Your task to perform on an android device: Check out the new nike air max 2020. Image 0: 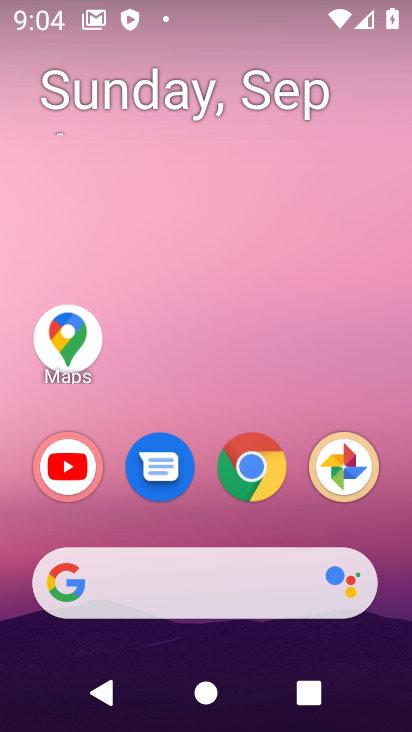
Step 0: click (242, 469)
Your task to perform on an android device: Check out the new nike air max 2020. Image 1: 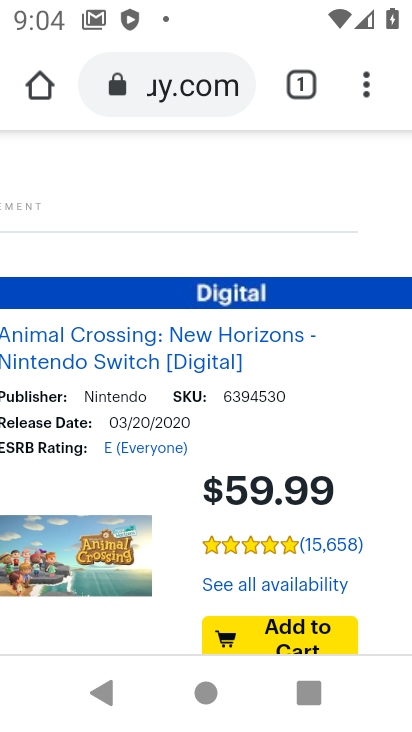
Step 1: click (205, 75)
Your task to perform on an android device: Check out the new nike air max 2020. Image 2: 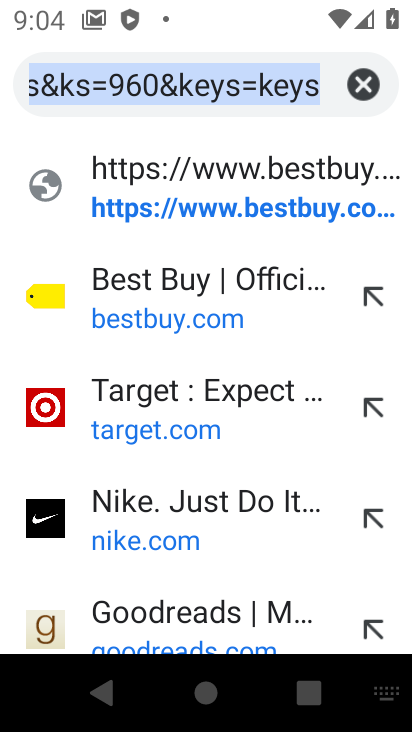
Step 2: click (164, 68)
Your task to perform on an android device: Check out the new nike air max 2020. Image 3: 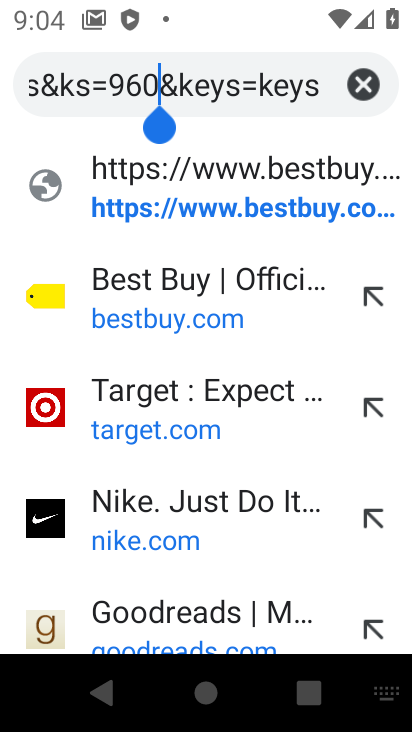
Step 3: click (170, 79)
Your task to perform on an android device: Check out the new nike air max 2020. Image 4: 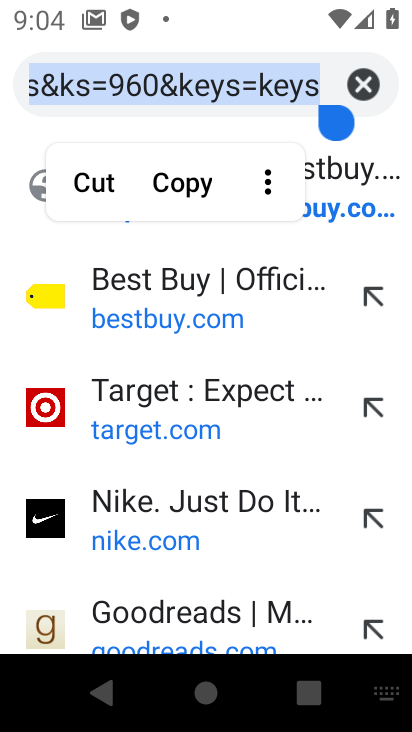
Step 4: click (365, 79)
Your task to perform on an android device: Check out the new nike air max 2020. Image 5: 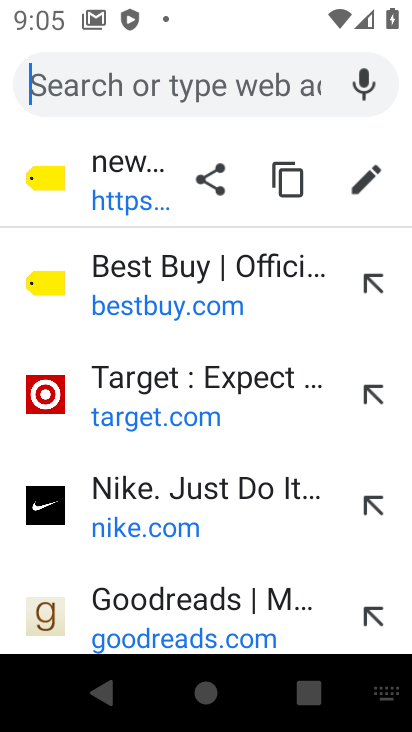
Step 5: type "new nike air max 2020"
Your task to perform on an android device: Check out the new nike air max 2020. Image 6: 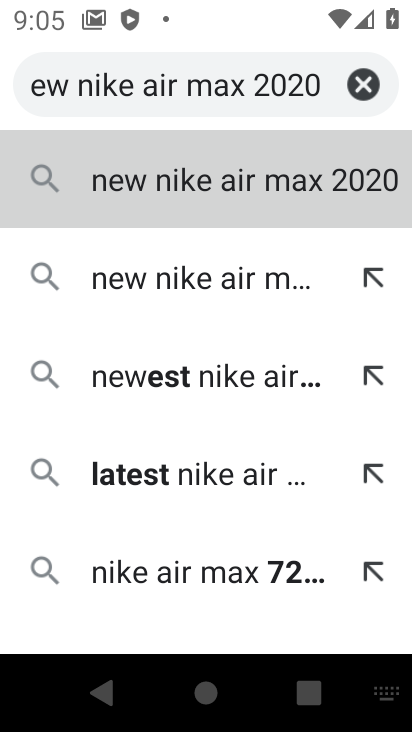
Step 6: type ""
Your task to perform on an android device: Check out the new nike air max 2020. Image 7: 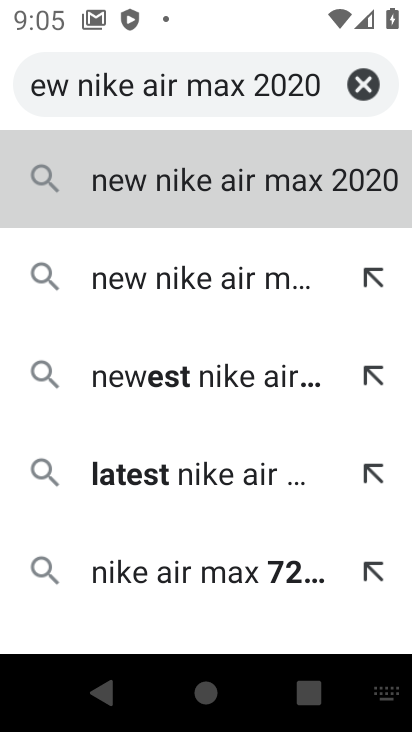
Step 7: click (215, 182)
Your task to perform on an android device: Check out the new nike air max 2020. Image 8: 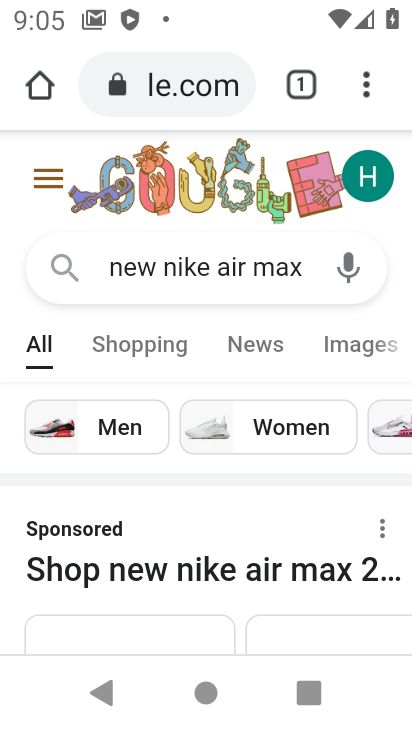
Step 8: drag from (256, 518) to (296, 171)
Your task to perform on an android device: Check out the new nike air max 2020. Image 9: 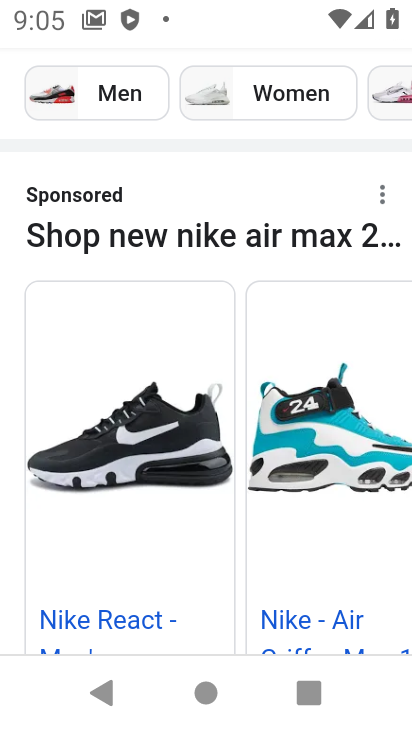
Step 9: click (112, 404)
Your task to perform on an android device: Check out the new nike air max 2020. Image 10: 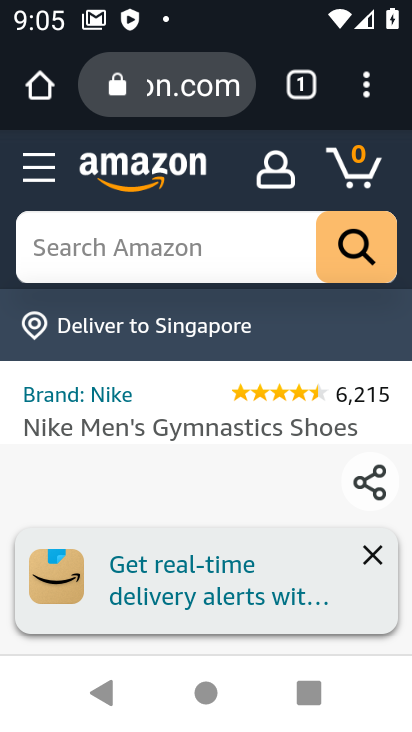
Step 10: drag from (138, 594) to (153, 233)
Your task to perform on an android device: Check out the new nike air max 2020. Image 11: 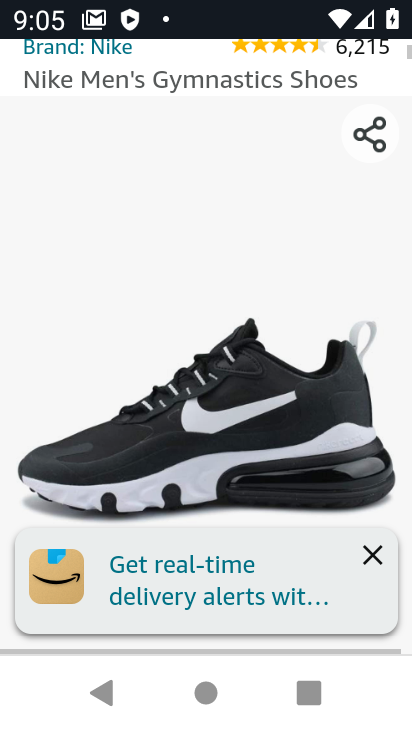
Step 11: drag from (205, 325) to (242, 276)
Your task to perform on an android device: Check out the new nike air max 2020. Image 12: 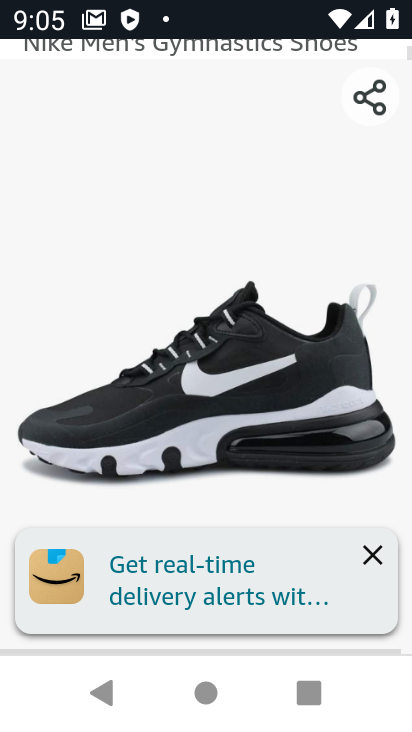
Step 12: click (371, 552)
Your task to perform on an android device: Check out the new nike air max 2020. Image 13: 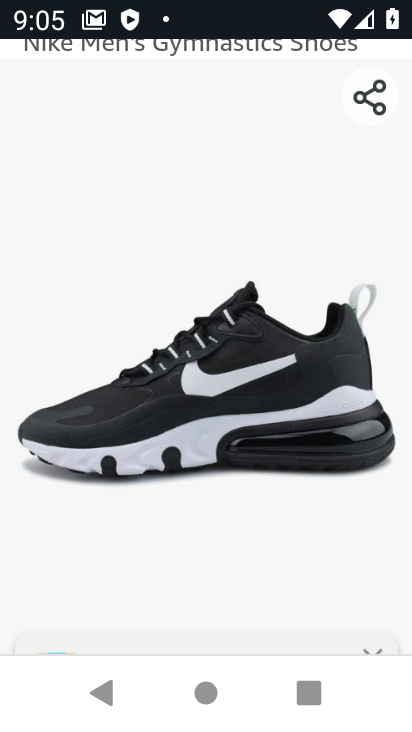
Step 13: drag from (297, 490) to (271, 246)
Your task to perform on an android device: Check out the new nike air max 2020. Image 14: 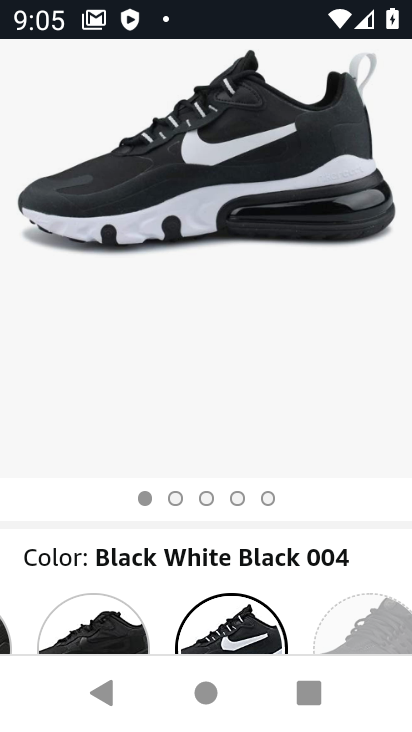
Step 14: drag from (297, 405) to (325, 258)
Your task to perform on an android device: Check out the new nike air max 2020. Image 15: 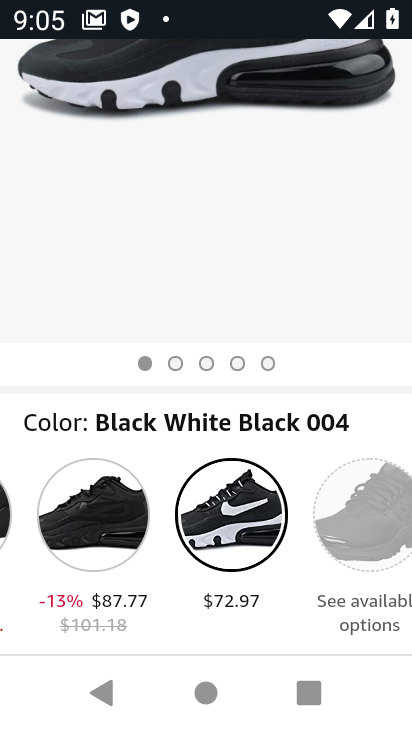
Step 15: drag from (336, 278) to (334, 104)
Your task to perform on an android device: Check out the new nike air max 2020. Image 16: 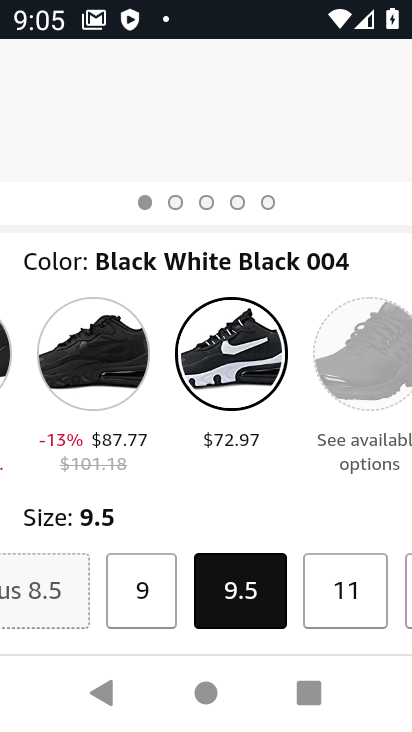
Step 16: click (254, 229)
Your task to perform on an android device: Check out the new nike air max 2020. Image 17: 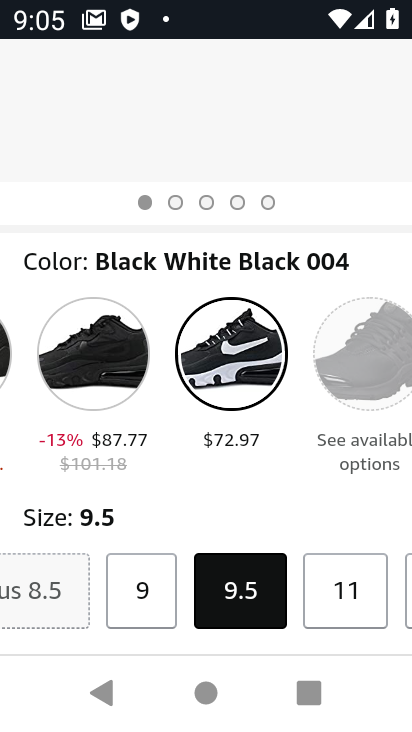
Step 17: drag from (226, 294) to (226, 241)
Your task to perform on an android device: Check out the new nike air max 2020. Image 18: 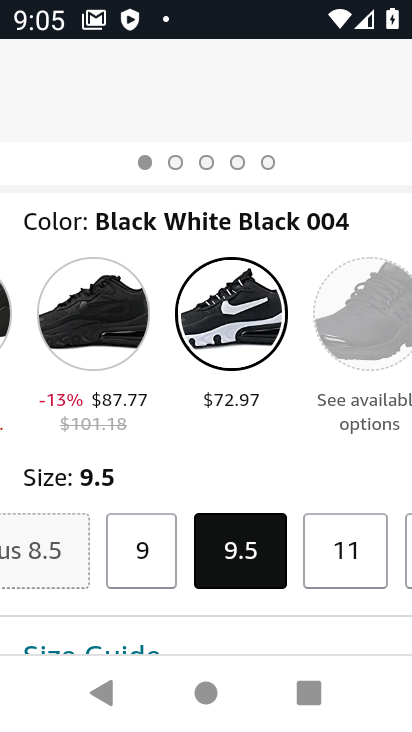
Step 18: drag from (344, 455) to (317, 226)
Your task to perform on an android device: Check out the new nike air max 2020. Image 19: 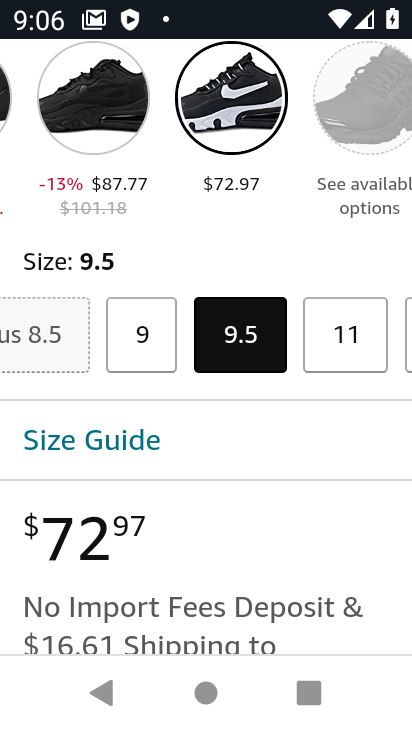
Step 19: click (293, 340)
Your task to perform on an android device: Check out the new nike air max 2020. Image 20: 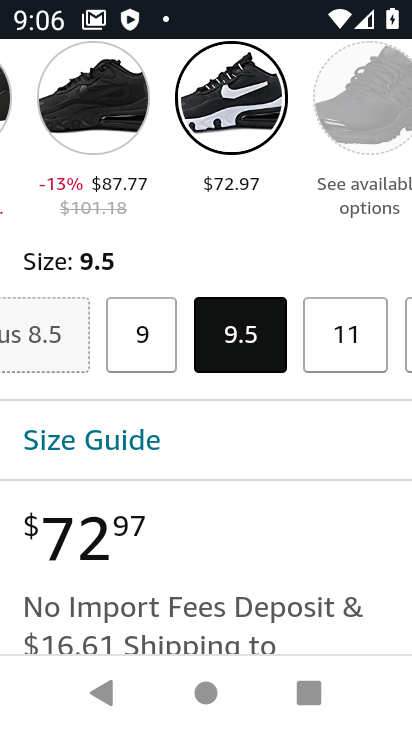
Step 20: drag from (388, 589) to (376, 344)
Your task to perform on an android device: Check out the new nike air max 2020. Image 21: 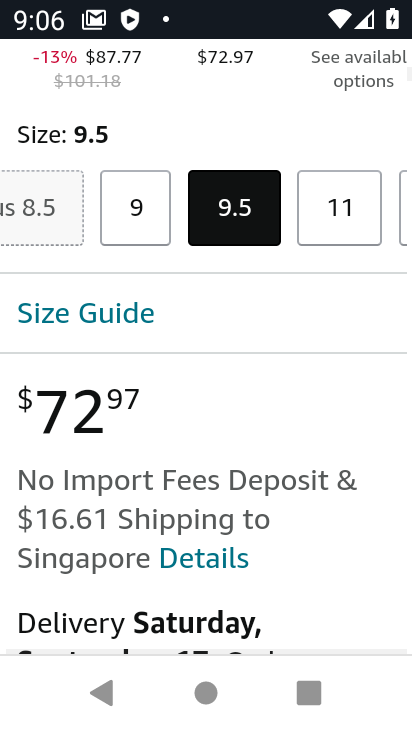
Step 21: drag from (369, 577) to (349, 361)
Your task to perform on an android device: Check out the new nike air max 2020. Image 22: 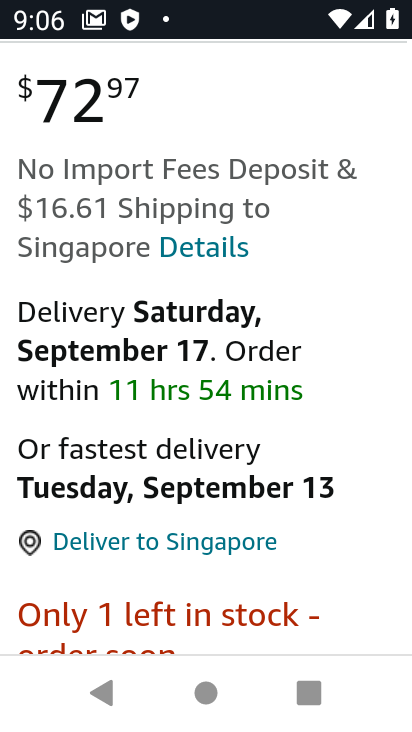
Step 22: drag from (324, 549) to (323, 416)
Your task to perform on an android device: Check out the new nike air max 2020. Image 23: 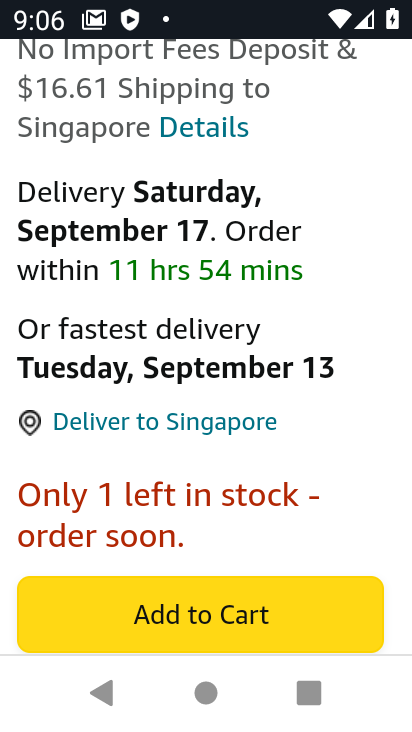
Step 23: drag from (335, 498) to (302, 312)
Your task to perform on an android device: Check out the new nike air max 2020. Image 24: 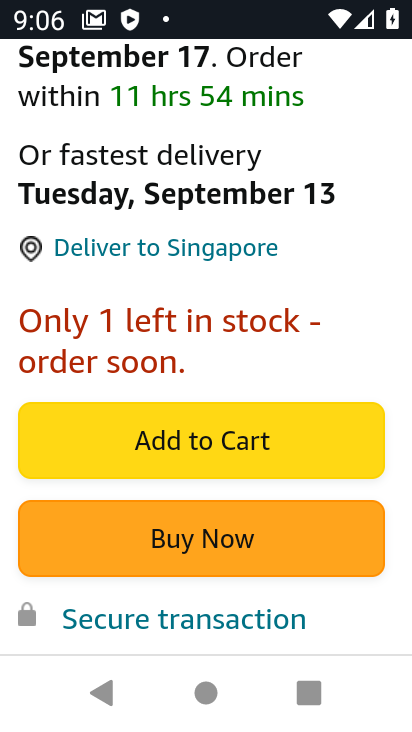
Step 24: drag from (350, 298) to (338, 115)
Your task to perform on an android device: Check out the new nike air max 2020. Image 25: 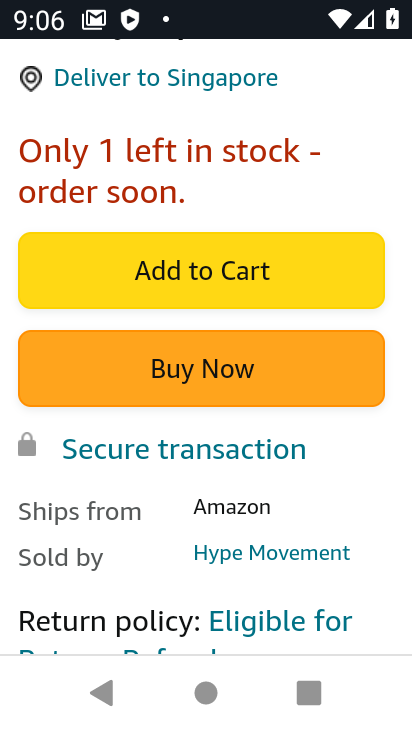
Step 25: drag from (395, 575) to (361, 139)
Your task to perform on an android device: Check out the new nike air max 2020. Image 26: 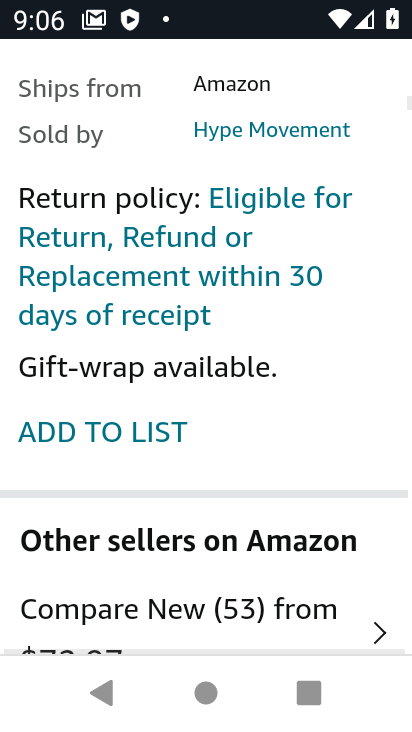
Step 26: drag from (372, 481) to (374, 177)
Your task to perform on an android device: Check out the new nike air max 2020. Image 27: 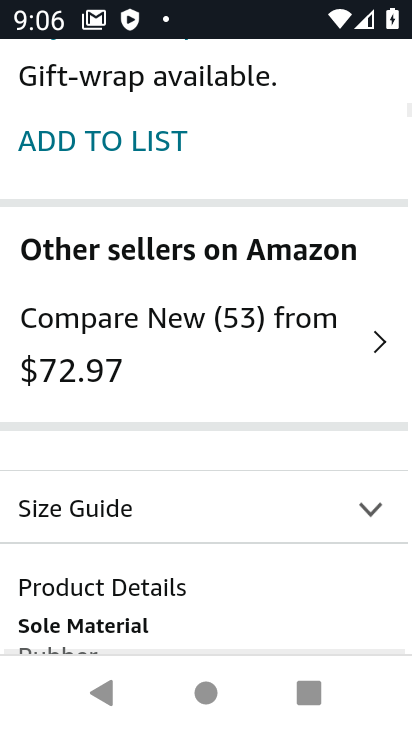
Step 27: drag from (392, 431) to (380, 173)
Your task to perform on an android device: Check out the new nike air max 2020. Image 28: 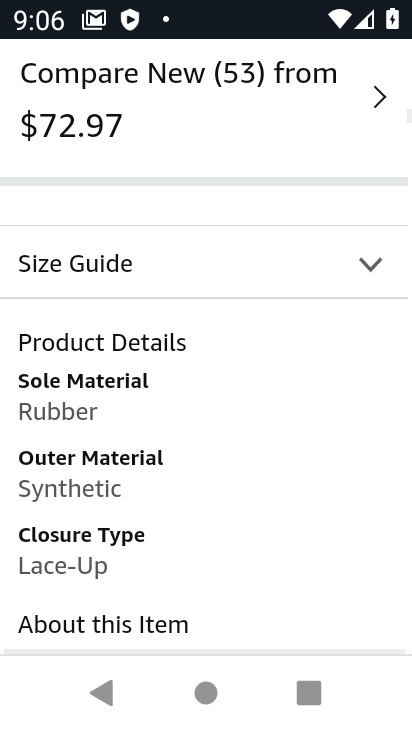
Step 28: drag from (337, 493) to (377, 238)
Your task to perform on an android device: Check out the new nike air max 2020. Image 29: 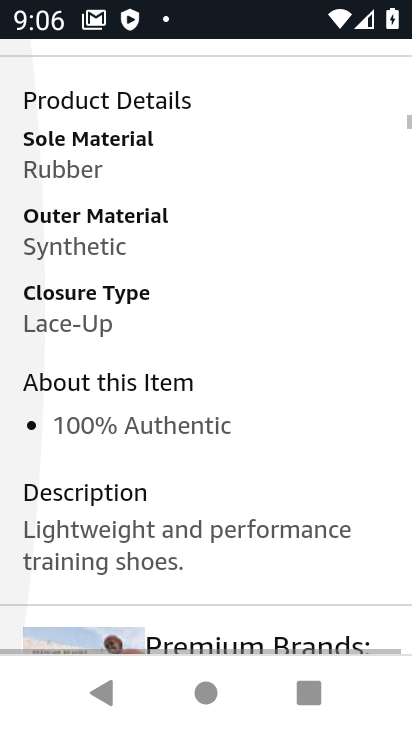
Step 29: drag from (356, 371) to (369, 162)
Your task to perform on an android device: Check out the new nike air max 2020. Image 30: 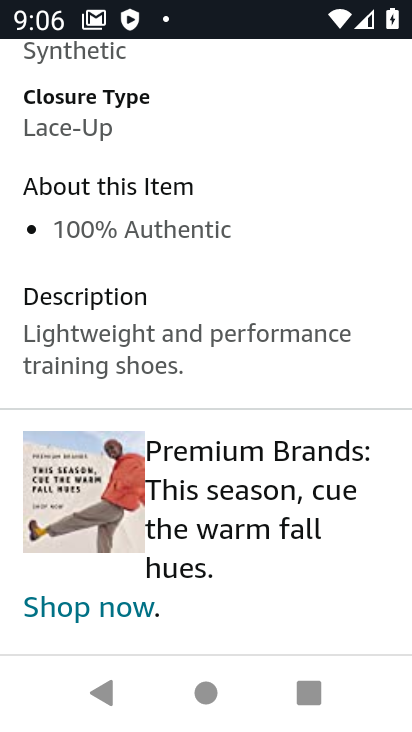
Step 30: drag from (326, 427) to (256, 170)
Your task to perform on an android device: Check out the new nike air max 2020. Image 31: 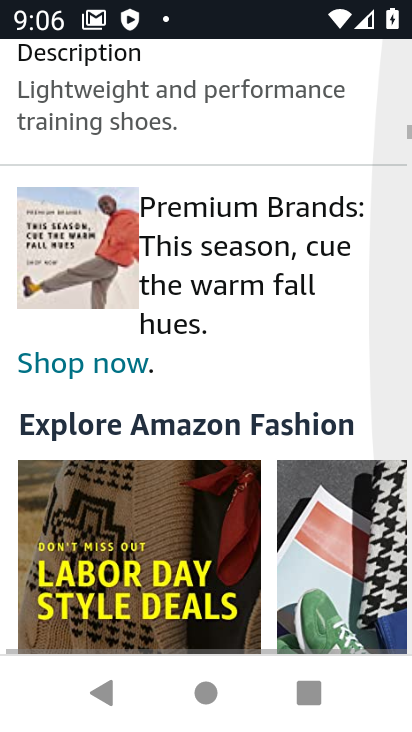
Step 31: drag from (266, 560) to (312, 238)
Your task to perform on an android device: Check out the new nike air max 2020. Image 32: 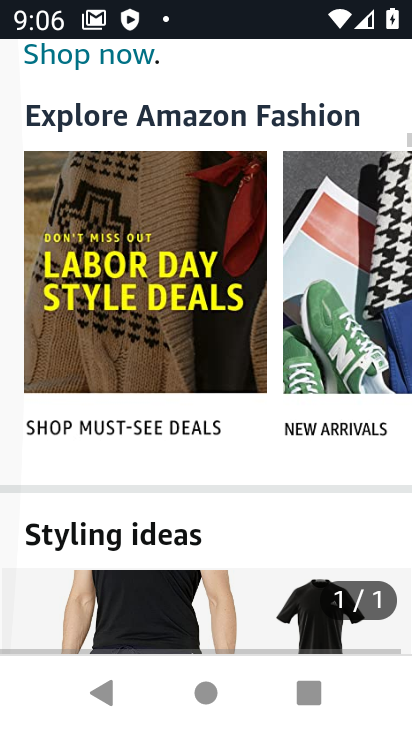
Step 32: drag from (368, 519) to (336, 699)
Your task to perform on an android device: Check out the new nike air max 2020. Image 33: 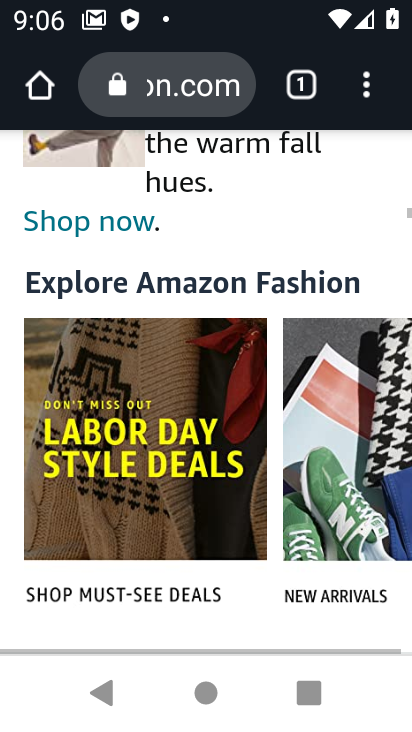
Step 33: drag from (385, 194) to (394, 730)
Your task to perform on an android device: Check out the new nike air max 2020. Image 34: 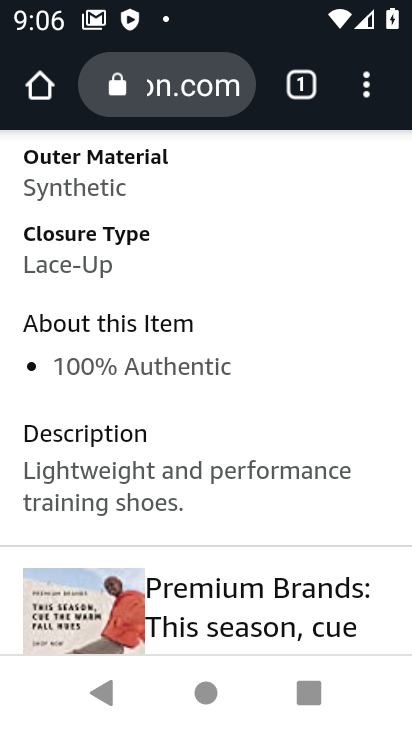
Step 34: drag from (367, 237) to (350, 672)
Your task to perform on an android device: Check out the new nike air max 2020. Image 35: 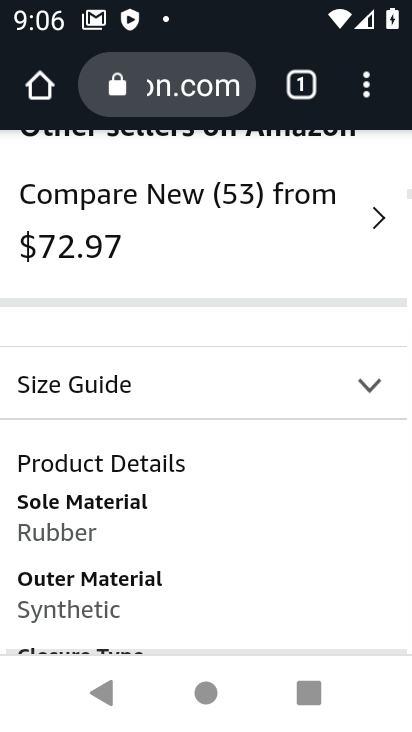
Step 35: drag from (315, 328) to (265, 683)
Your task to perform on an android device: Check out the new nike air max 2020. Image 36: 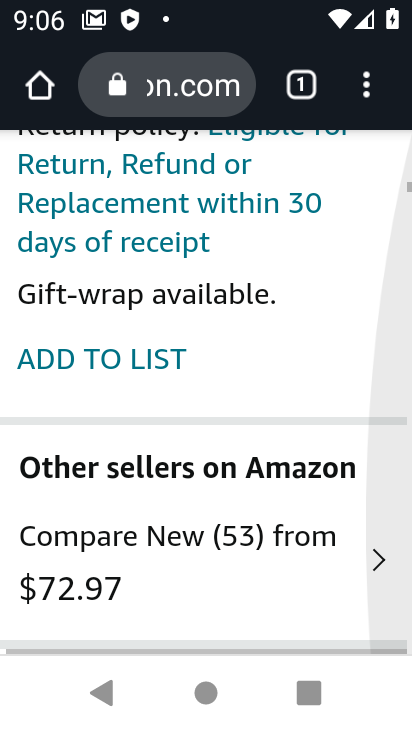
Step 36: drag from (337, 299) to (325, 611)
Your task to perform on an android device: Check out the new nike air max 2020. Image 37: 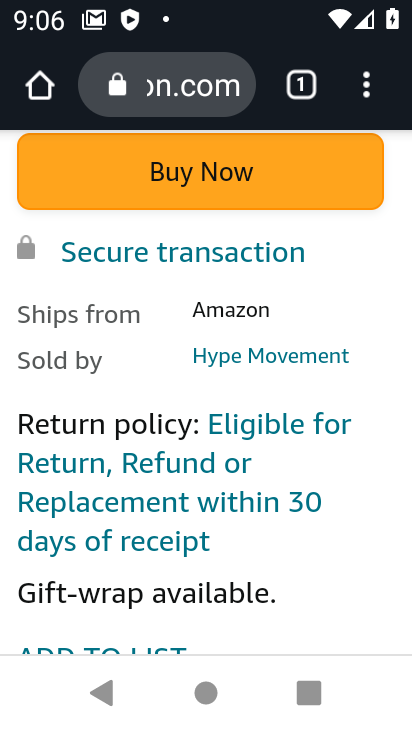
Step 37: drag from (393, 446) to (395, 599)
Your task to perform on an android device: Check out the new nike air max 2020. Image 38: 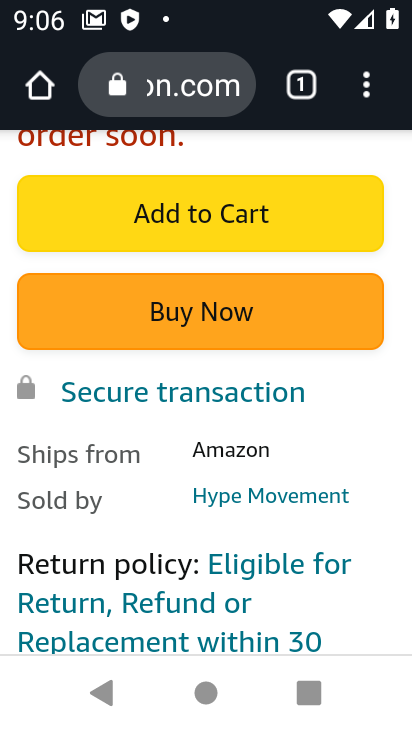
Step 38: drag from (381, 256) to (332, 731)
Your task to perform on an android device: Check out the new nike air max 2020. Image 39: 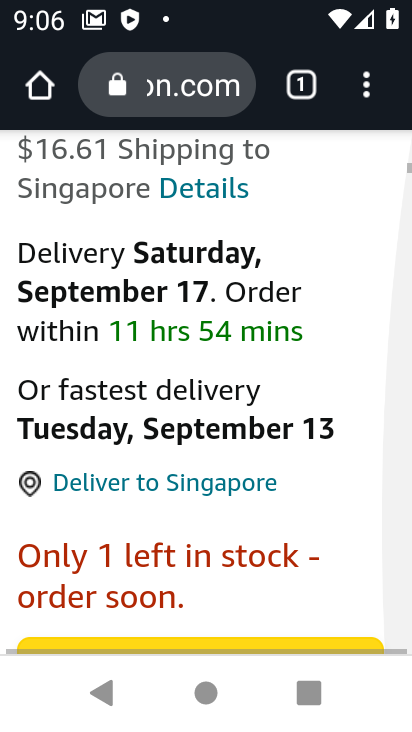
Step 39: drag from (364, 299) to (408, 604)
Your task to perform on an android device: Check out the new nike air max 2020. Image 40: 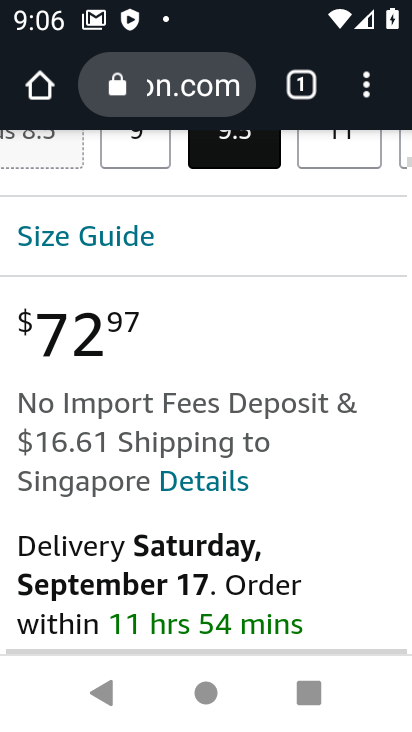
Step 40: drag from (347, 304) to (363, 660)
Your task to perform on an android device: Check out the new nike air max 2020. Image 41: 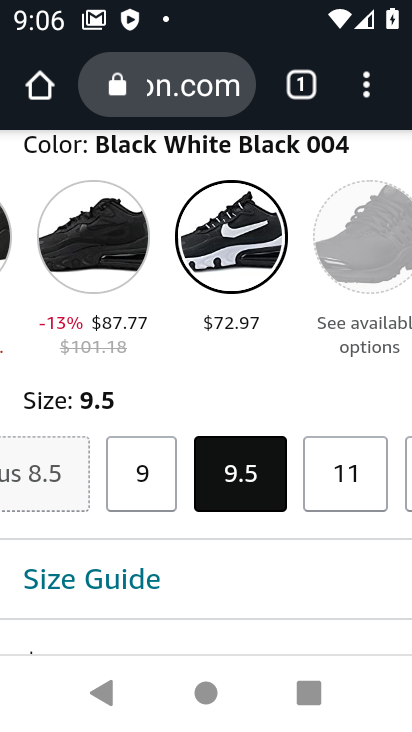
Step 41: drag from (268, 334) to (306, 674)
Your task to perform on an android device: Check out the new nike air max 2020. Image 42: 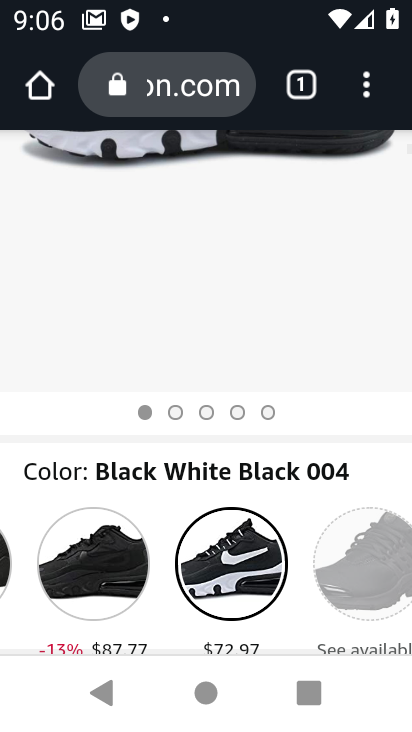
Step 42: drag from (283, 349) to (291, 635)
Your task to perform on an android device: Check out the new nike air max 2020. Image 43: 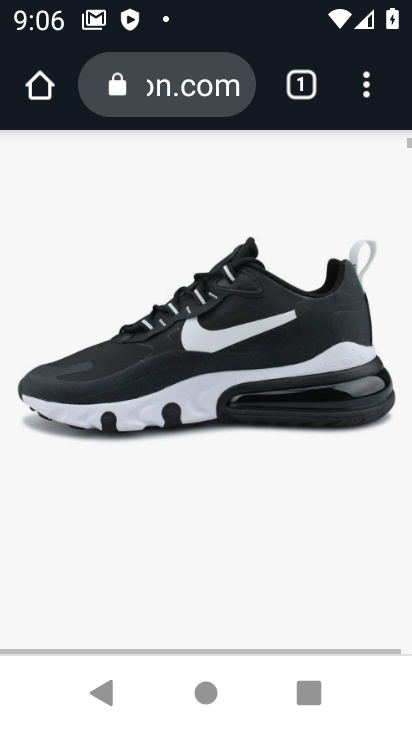
Step 43: drag from (212, 391) to (260, 669)
Your task to perform on an android device: Check out the new nike air max 2020. Image 44: 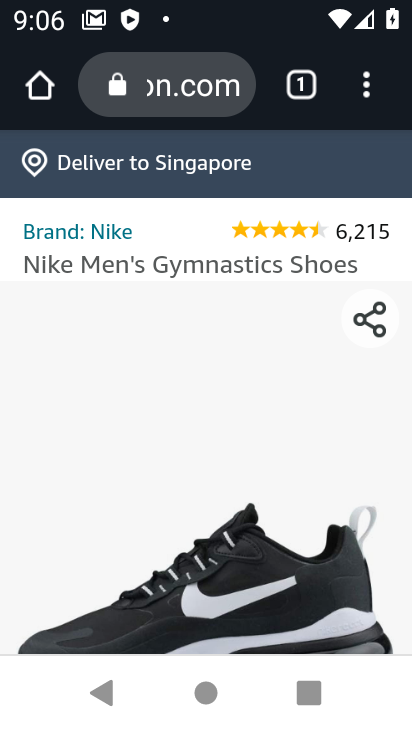
Step 44: drag from (206, 350) to (195, 721)
Your task to perform on an android device: Check out the new nike air max 2020. Image 45: 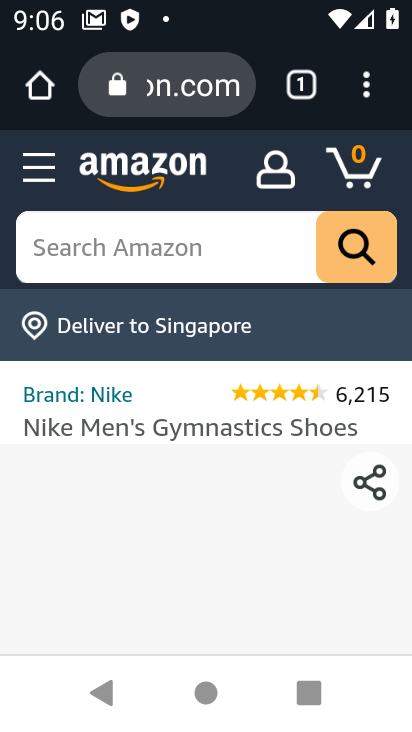
Step 45: click (258, 259)
Your task to perform on an android device: Check out the new nike air max 2020. Image 46: 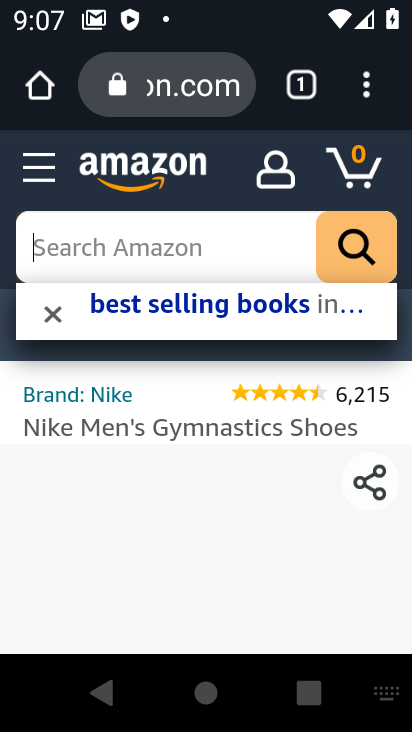
Step 46: type "new nike air max 2020"
Your task to perform on an android device: Check out the new nike air max 2020. Image 47: 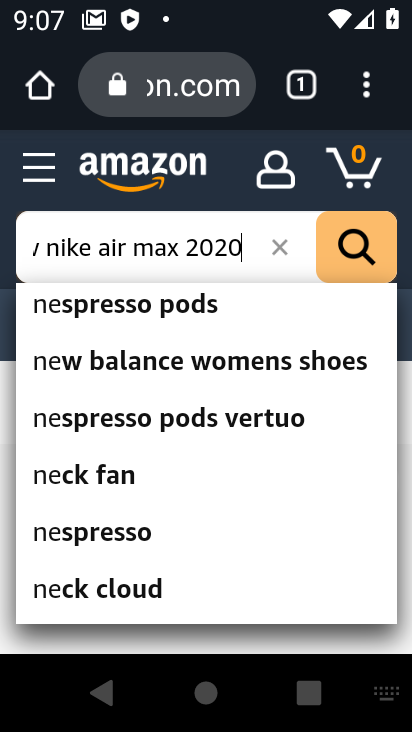
Step 47: type ""
Your task to perform on an android device: Check out the new nike air max 2020. Image 48: 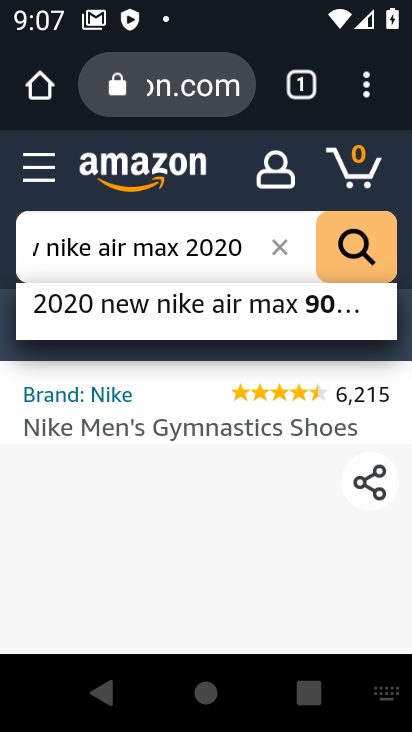
Step 48: click (234, 310)
Your task to perform on an android device: Check out the new nike air max 2020. Image 49: 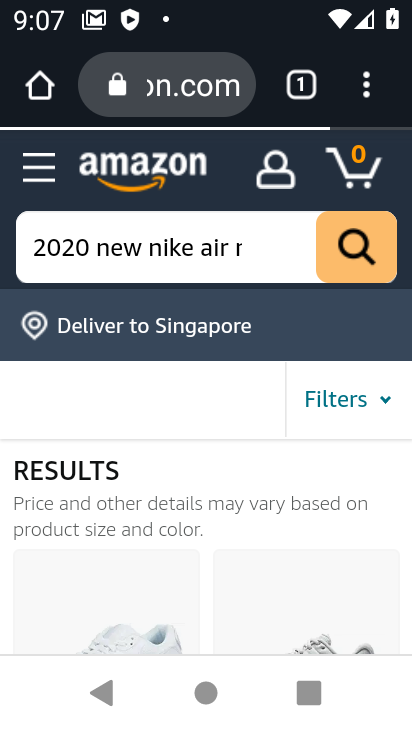
Step 49: drag from (254, 434) to (258, 395)
Your task to perform on an android device: Check out the new nike air max 2020. Image 50: 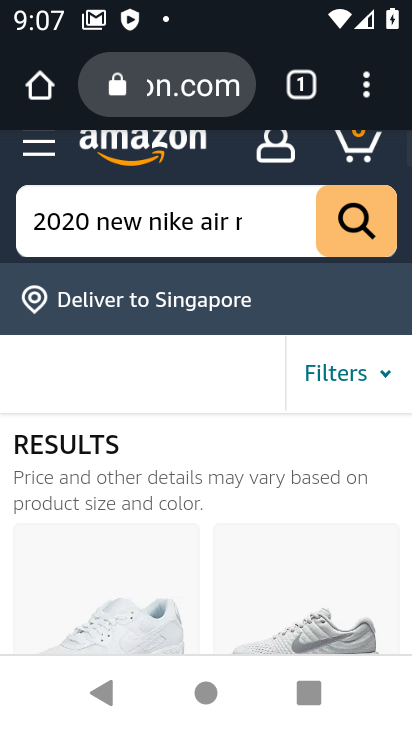
Step 50: drag from (225, 518) to (246, 332)
Your task to perform on an android device: Check out the new nike air max 2020. Image 51: 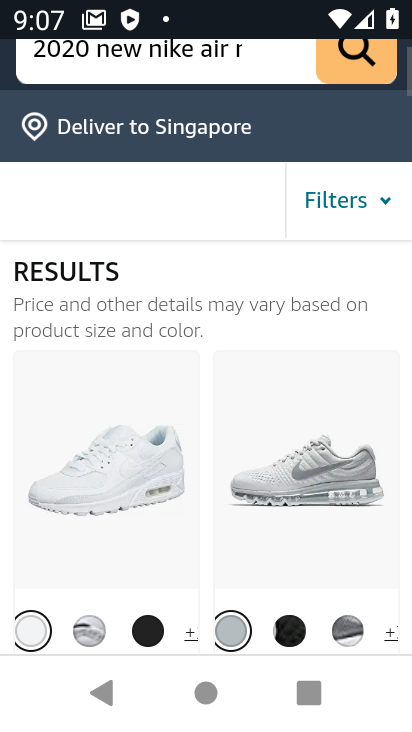
Step 51: click (342, 242)
Your task to perform on an android device: Check out the new nike air max 2020. Image 52: 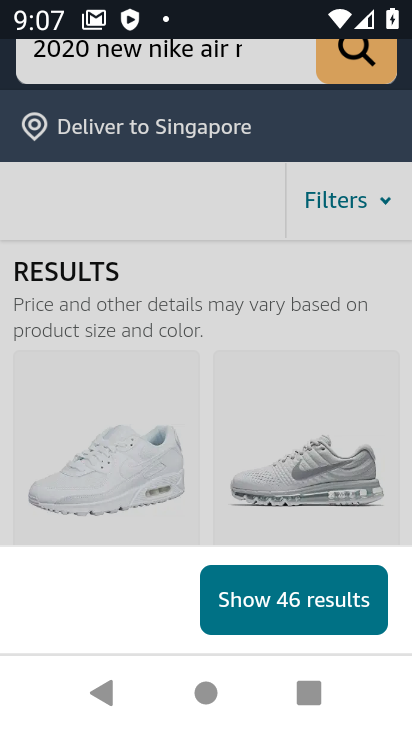
Step 52: task complete